Your task to perform on an android device: Open Chrome and go to the settings page Image 0: 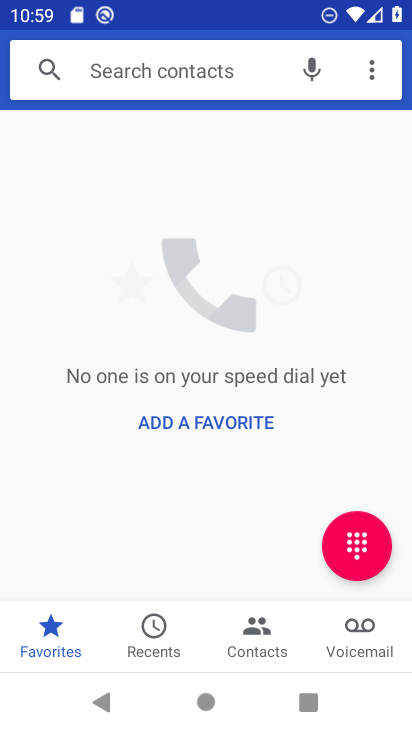
Step 0: press home button
Your task to perform on an android device: Open Chrome and go to the settings page Image 1: 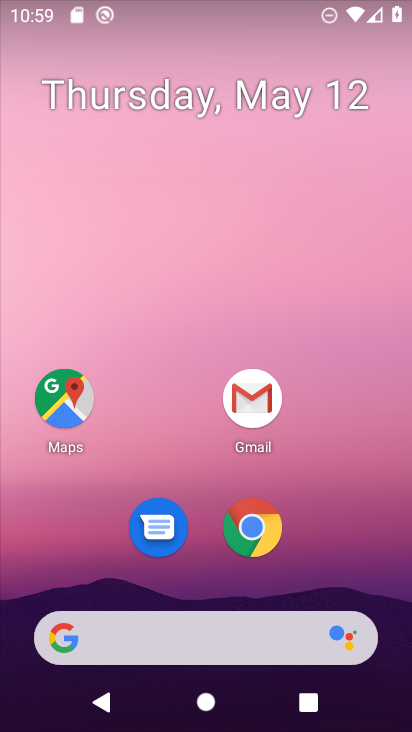
Step 1: click (236, 550)
Your task to perform on an android device: Open Chrome and go to the settings page Image 2: 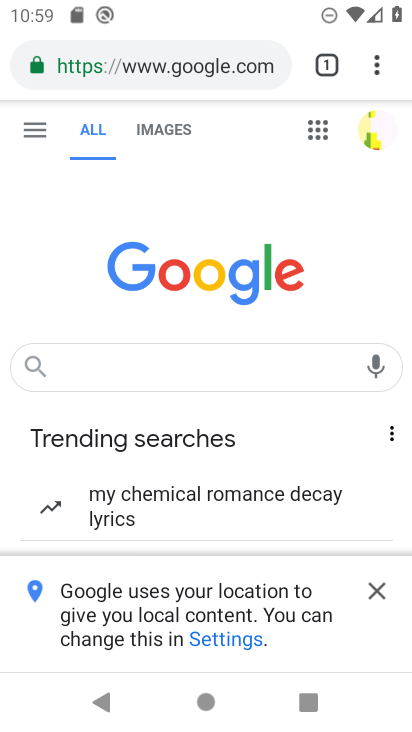
Step 2: click (364, 77)
Your task to perform on an android device: Open Chrome and go to the settings page Image 3: 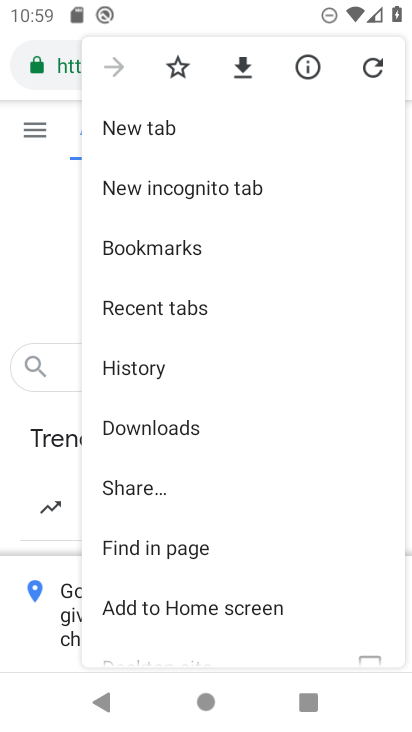
Step 3: drag from (174, 540) to (223, 351)
Your task to perform on an android device: Open Chrome and go to the settings page Image 4: 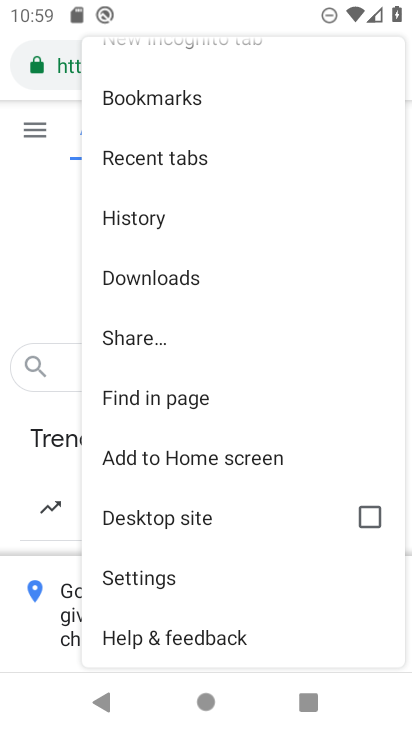
Step 4: click (200, 556)
Your task to perform on an android device: Open Chrome and go to the settings page Image 5: 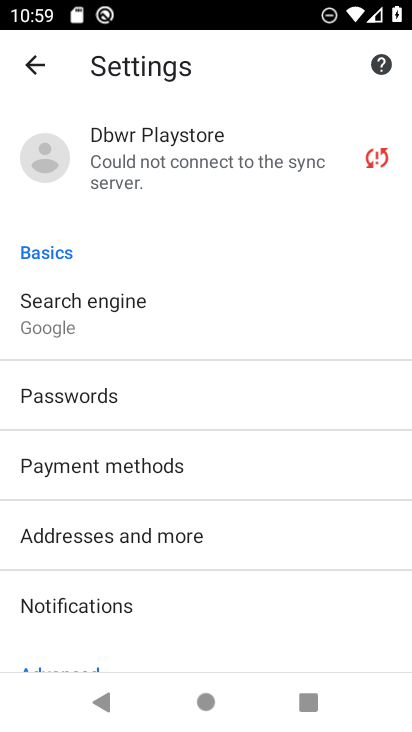
Step 5: task complete